Your task to perform on an android device: all mails in gmail Image 0: 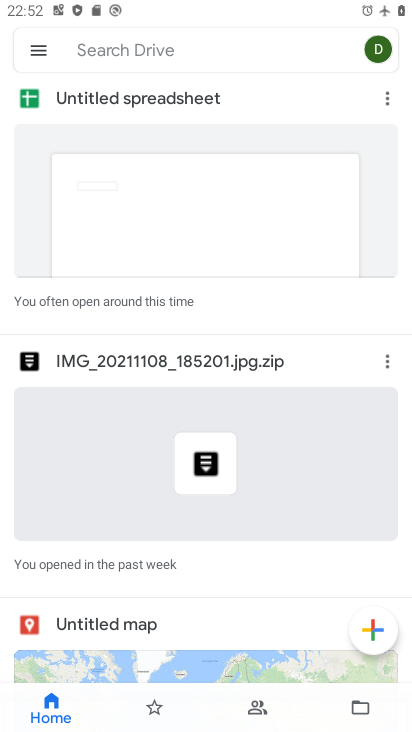
Step 0: press home button
Your task to perform on an android device: all mails in gmail Image 1: 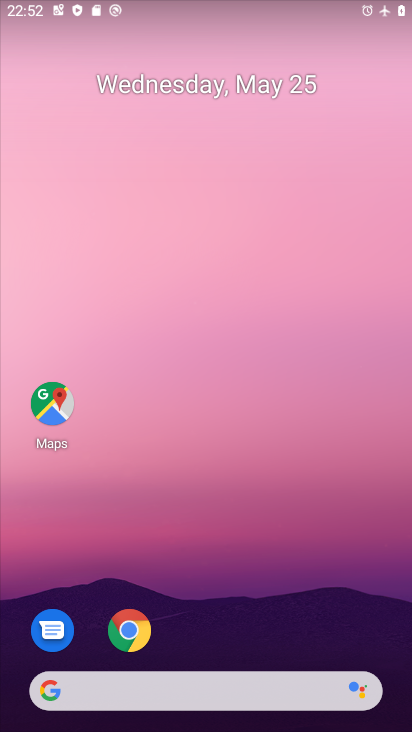
Step 1: drag from (240, 583) to (241, 287)
Your task to perform on an android device: all mails in gmail Image 2: 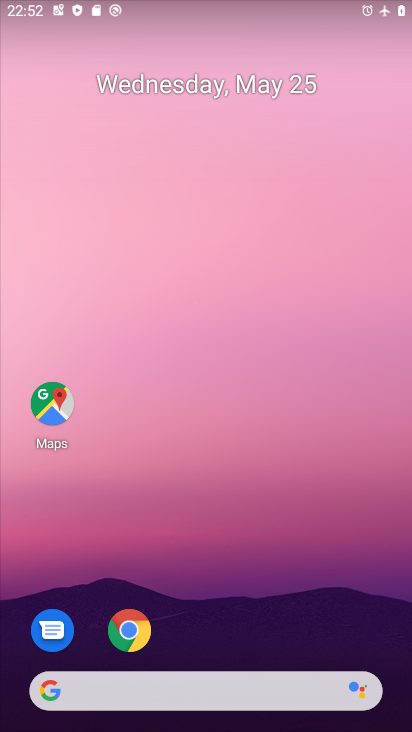
Step 2: drag from (249, 642) to (288, 156)
Your task to perform on an android device: all mails in gmail Image 3: 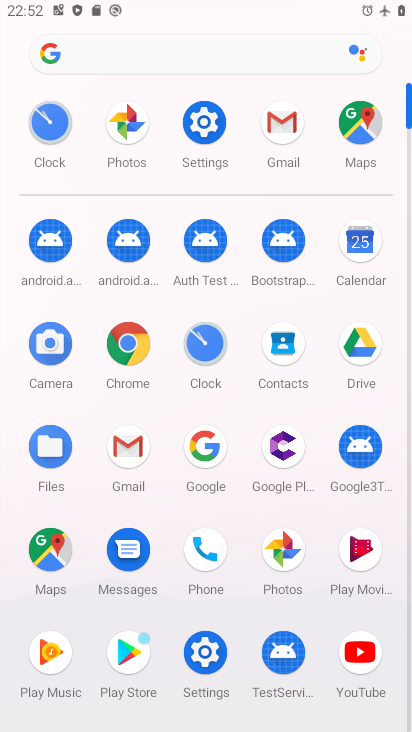
Step 3: click (288, 156)
Your task to perform on an android device: all mails in gmail Image 4: 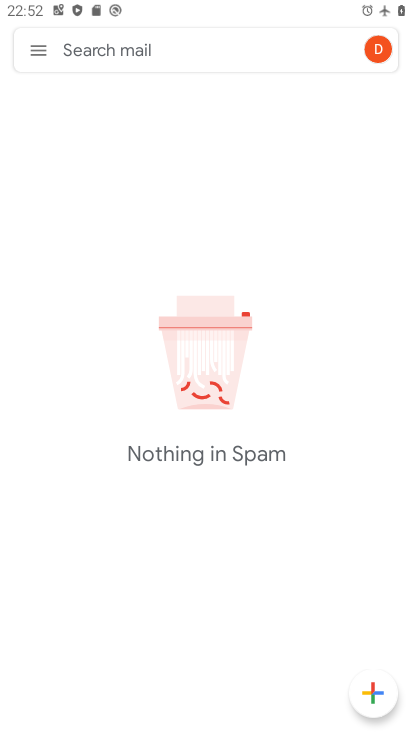
Step 4: click (37, 49)
Your task to perform on an android device: all mails in gmail Image 5: 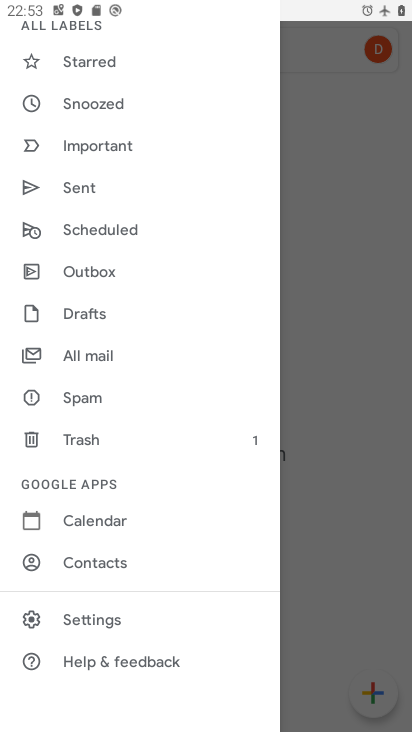
Step 5: click (80, 364)
Your task to perform on an android device: all mails in gmail Image 6: 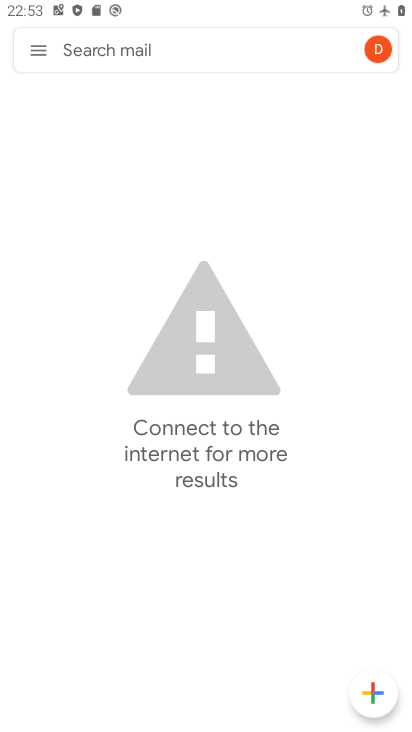
Step 6: task complete